Your task to perform on an android device: Go to accessibility settings Image 0: 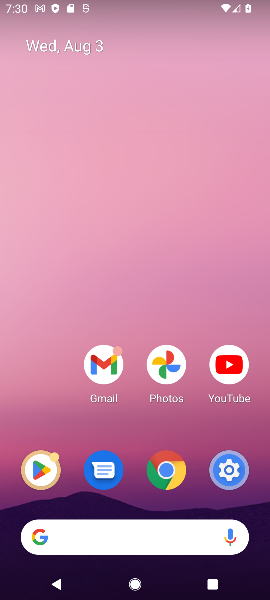
Step 0: click (224, 463)
Your task to perform on an android device: Go to accessibility settings Image 1: 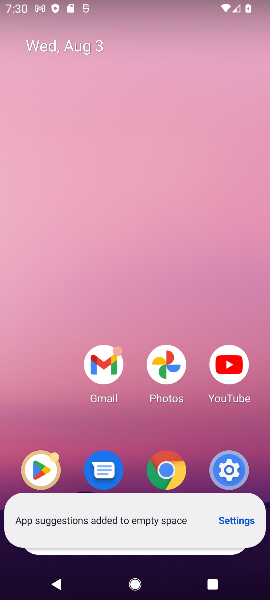
Step 1: click (229, 469)
Your task to perform on an android device: Go to accessibility settings Image 2: 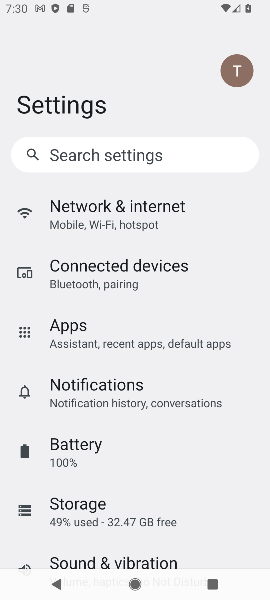
Step 2: drag from (117, 529) to (99, 169)
Your task to perform on an android device: Go to accessibility settings Image 3: 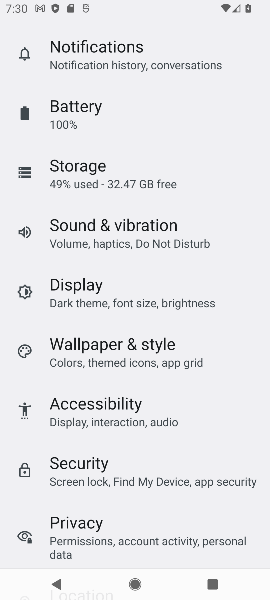
Step 3: click (43, 411)
Your task to perform on an android device: Go to accessibility settings Image 4: 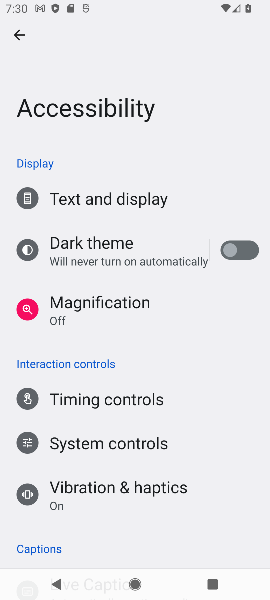
Step 4: task complete